Your task to perform on an android device: Clear all items from cart on ebay. Add "energizer triple a" to the cart on ebay, then select checkout. Image 0: 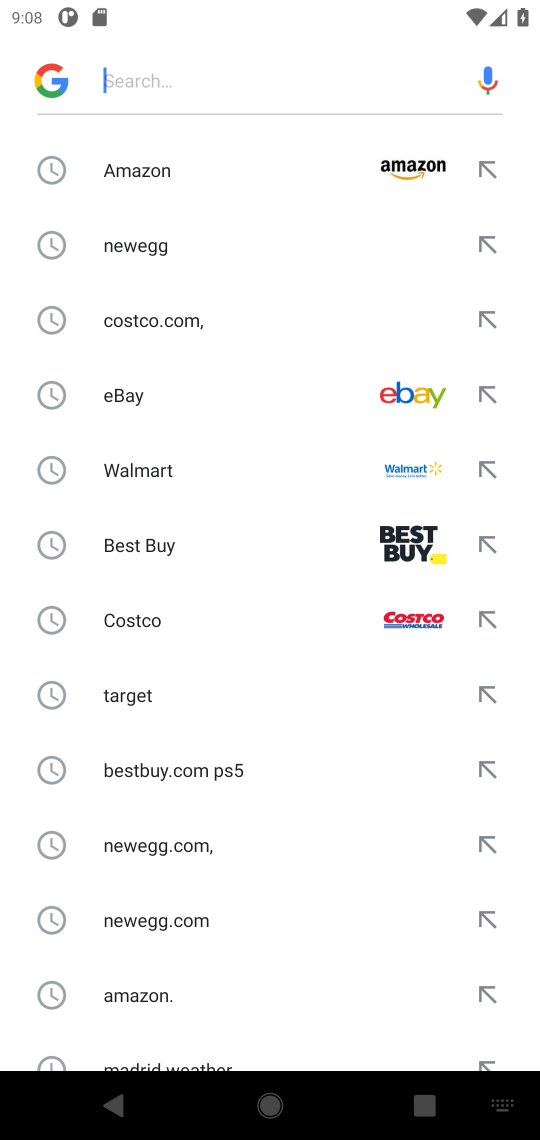
Step 0: click (275, 394)
Your task to perform on an android device: Clear all items from cart on ebay. Add "energizer triple a" to the cart on ebay, then select checkout. Image 1: 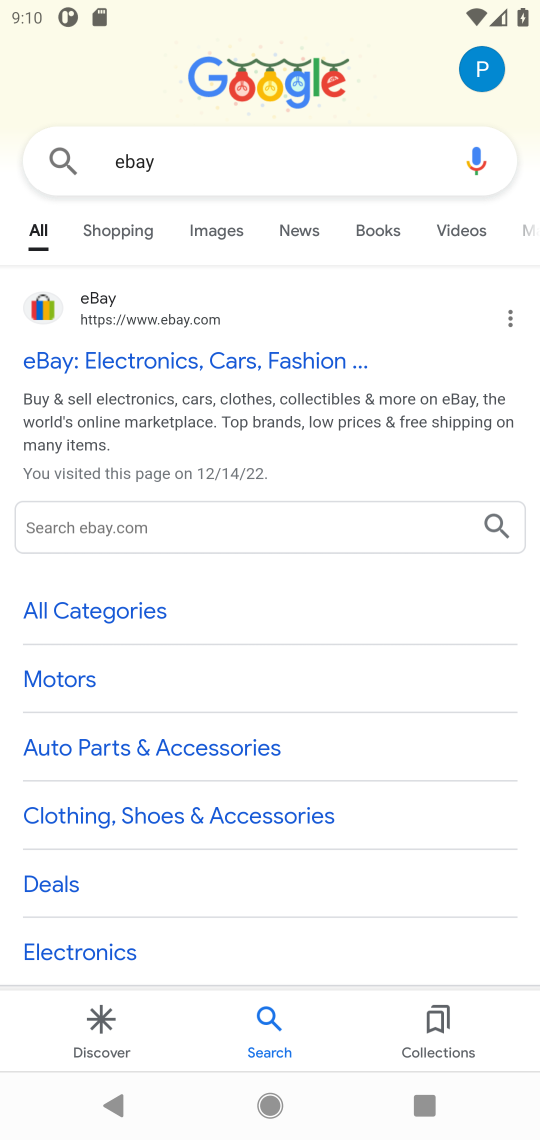
Step 1: click (192, 353)
Your task to perform on an android device: Clear all items from cart on ebay. Add "energizer triple a" to the cart on ebay, then select checkout. Image 2: 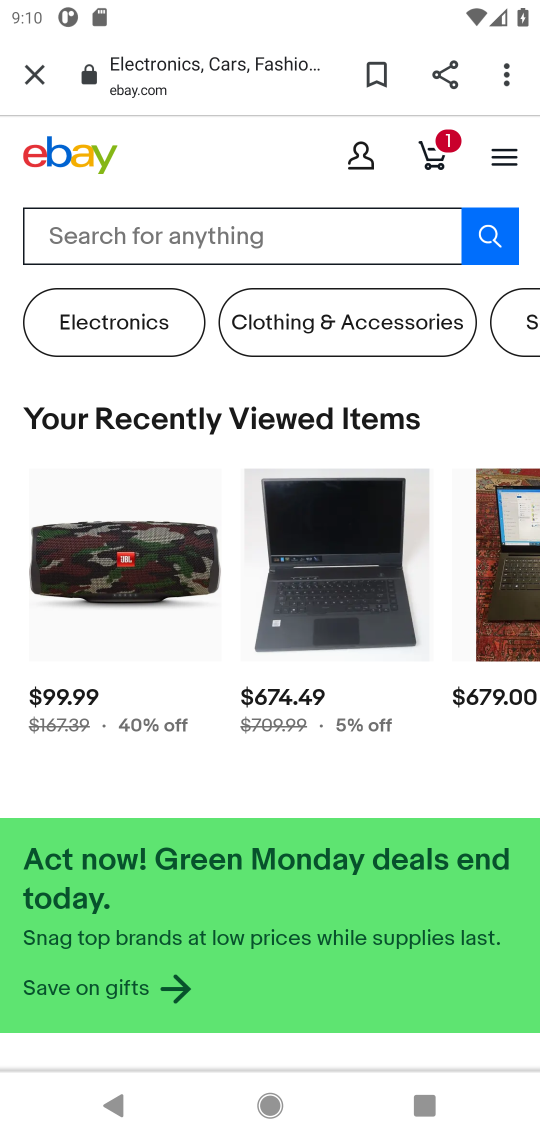
Step 2: click (443, 149)
Your task to perform on an android device: Clear all items from cart on ebay. Add "energizer triple a" to the cart on ebay, then select checkout. Image 3: 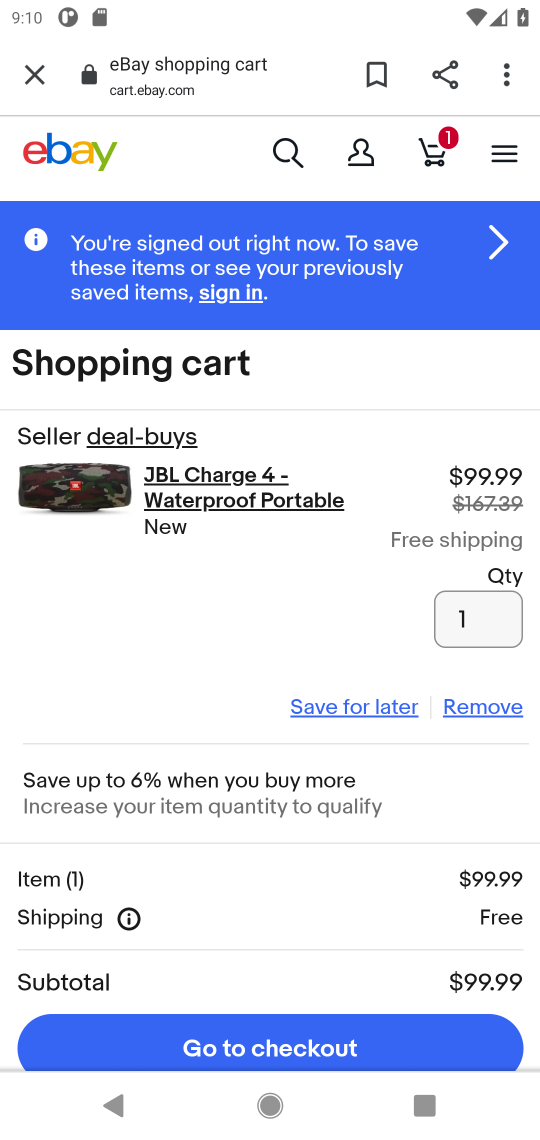
Step 3: click (481, 715)
Your task to perform on an android device: Clear all items from cart on ebay. Add "energizer triple a" to the cart on ebay, then select checkout. Image 4: 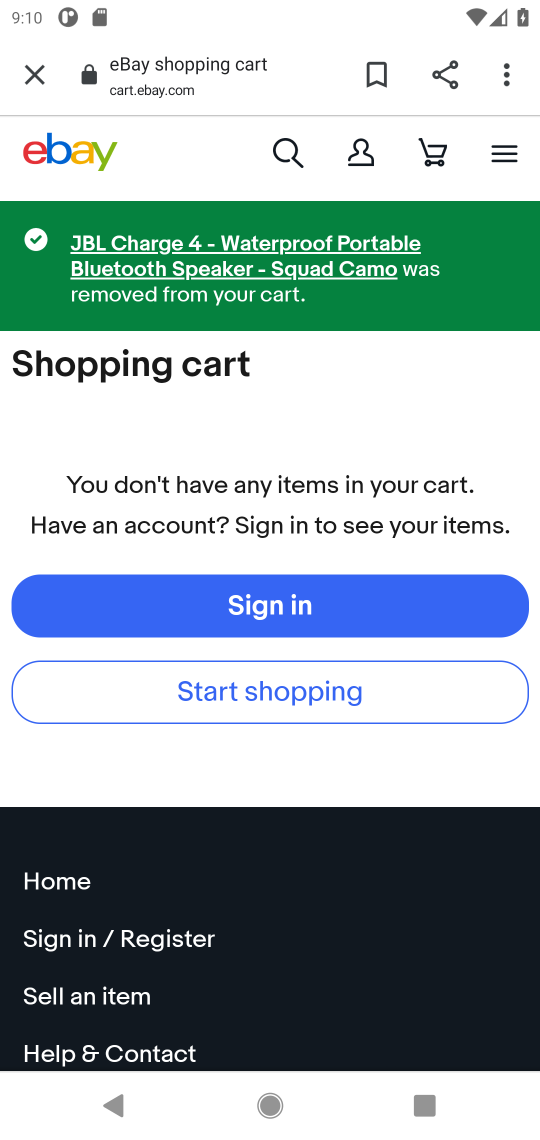
Step 4: click (279, 139)
Your task to perform on an android device: Clear all items from cart on ebay. Add "energizer triple a" to the cart on ebay, then select checkout. Image 5: 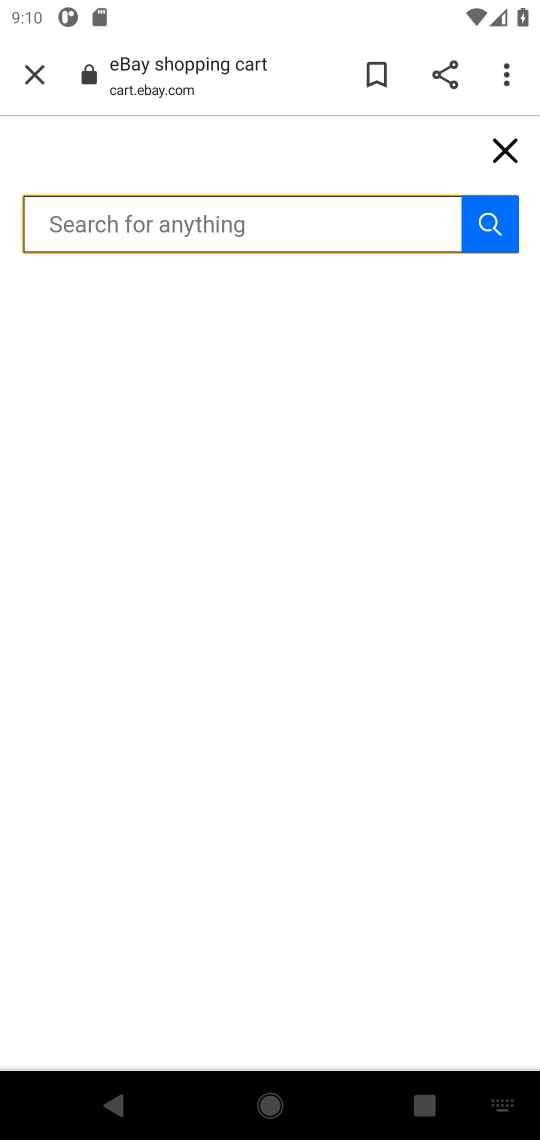
Step 5: type "energizer triple a"
Your task to perform on an android device: Clear all items from cart on ebay. Add "energizer triple a" to the cart on ebay, then select checkout. Image 6: 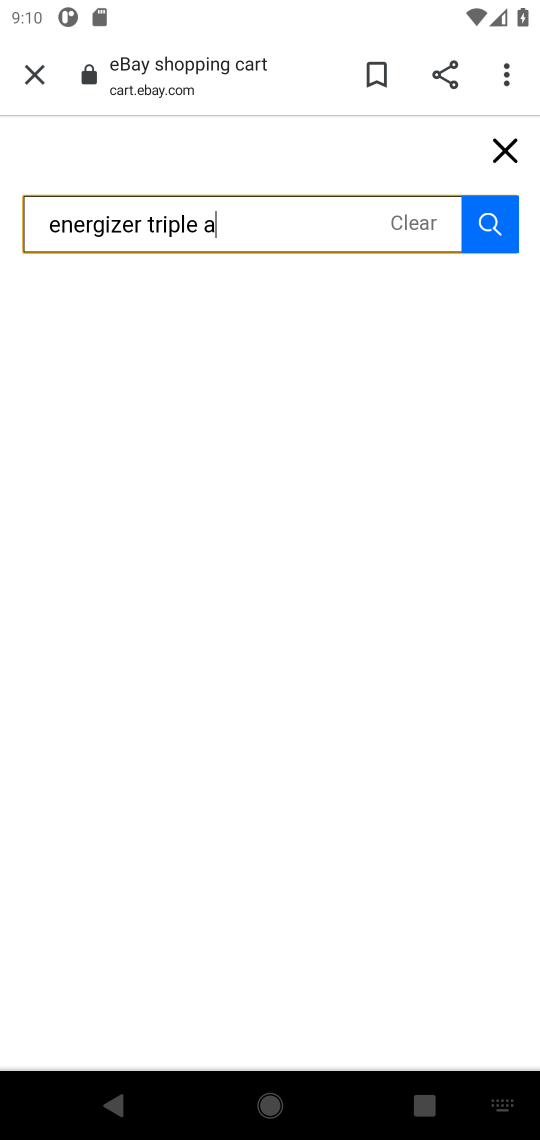
Step 6: type ""
Your task to perform on an android device: Clear all items from cart on ebay. Add "energizer triple a" to the cart on ebay, then select checkout. Image 7: 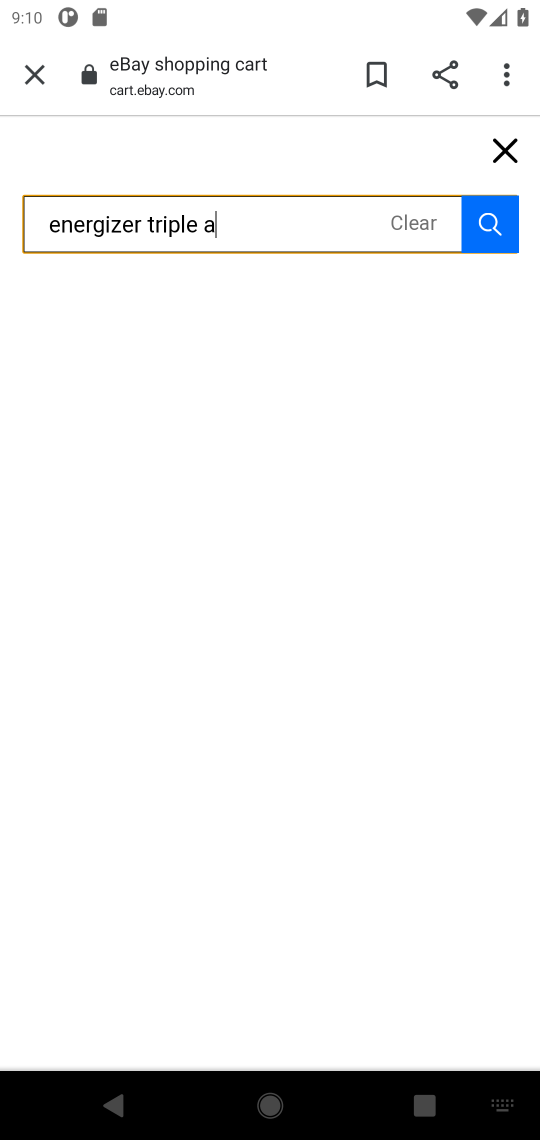
Step 7: click (485, 249)
Your task to perform on an android device: Clear all items from cart on ebay. Add "energizer triple a" to the cart on ebay, then select checkout. Image 8: 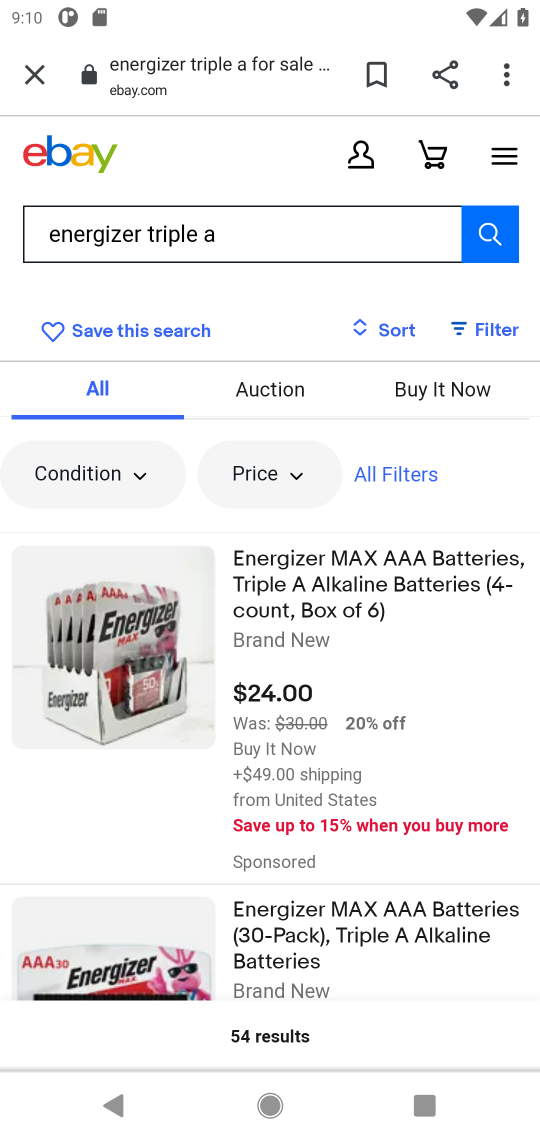
Step 8: click (347, 584)
Your task to perform on an android device: Clear all items from cart on ebay. Add "energizer triple a" to the cart on ebay, then select checkout. Image 9: 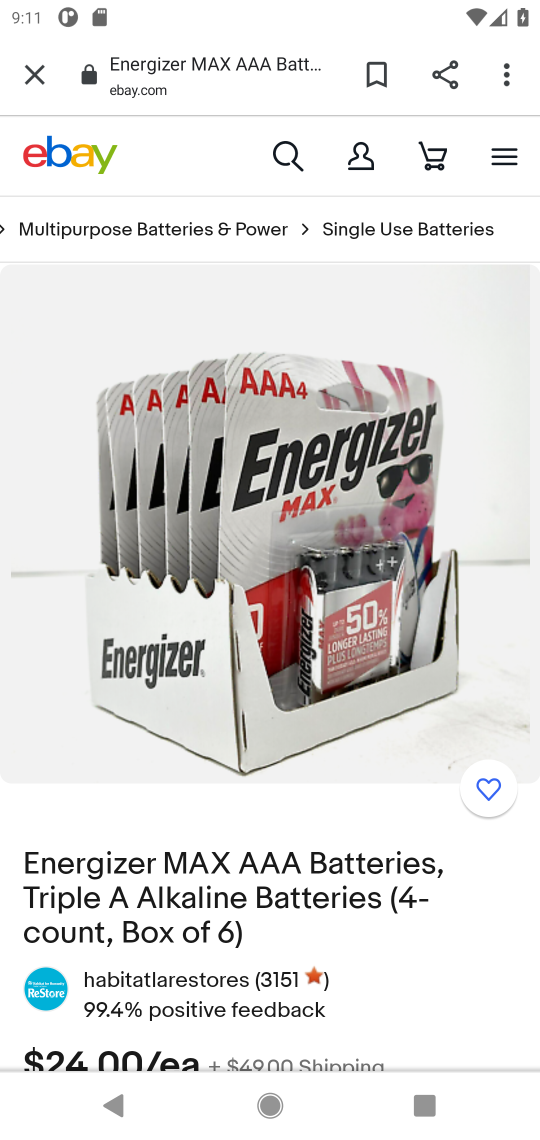
Step 9: drag from (314, 958) to (169, 588)
Your task to perform on an android device: Clear all items from cart on ebay. Add "energizer triple a" to the cart on ebay, then select checkout. Image 10: 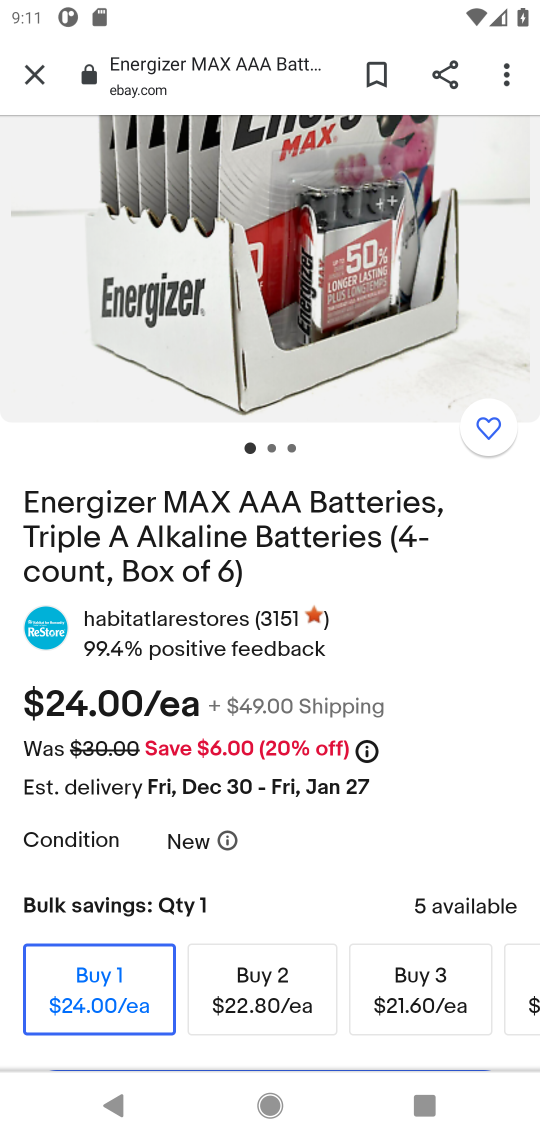
Step 10: drag from (342, 899) to (214, 281)
Your task to perform on an android device: Clear all items from cart on ebay. Add "energizer triple a" to the cart on ebay, then select checkout. Image 11: 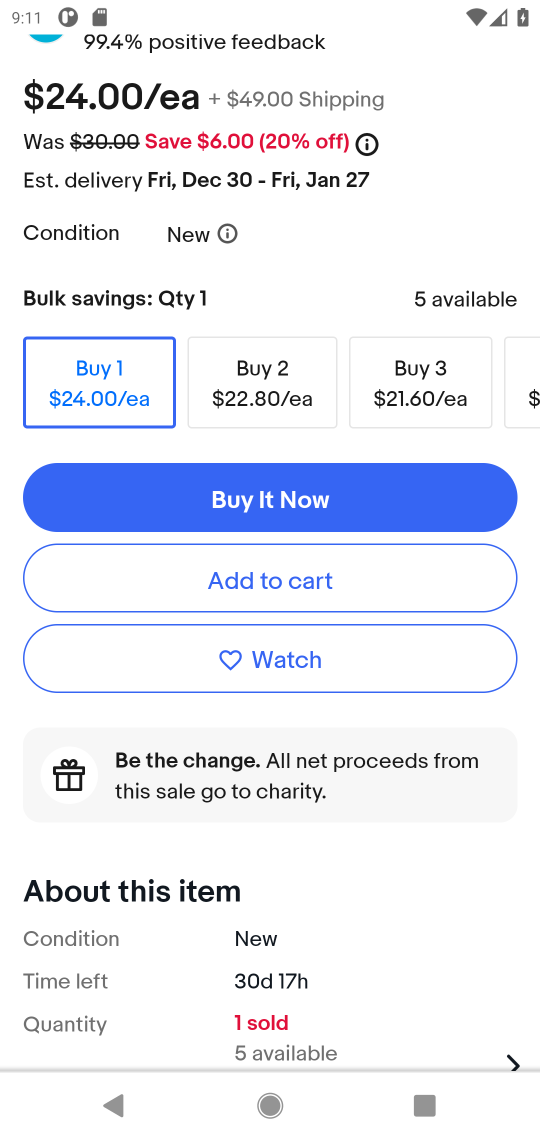
Step 11: click (294, 577)
Your task to perform on an android device: Clear all items from cart on ebay. Add "energizer triple a" to the cart on ebay, then select checkout. Image 12: 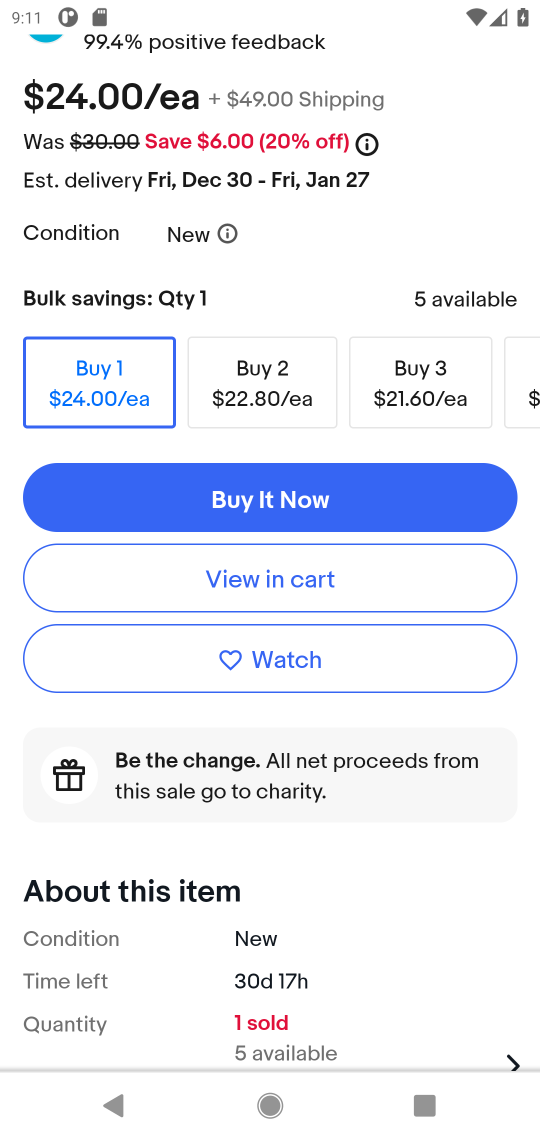
Step 12: click (294, 577)
Your task to perform on an android device: Clear all items from cart on ebay. Add "energizer triple a" to the cart on ebay, then select checkout. Image 13: 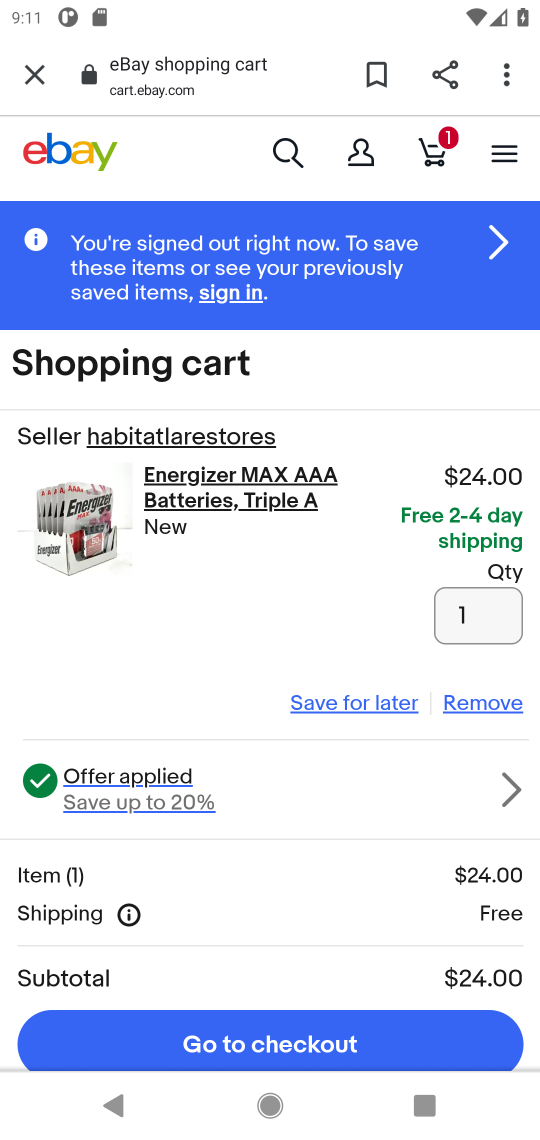
Step 13: click (268, 1029)
Your task to perform on an android device: Clear all items from cart on ebay. Add "energizer triple a" to the cart on ebay, then select checkout. Image 14: 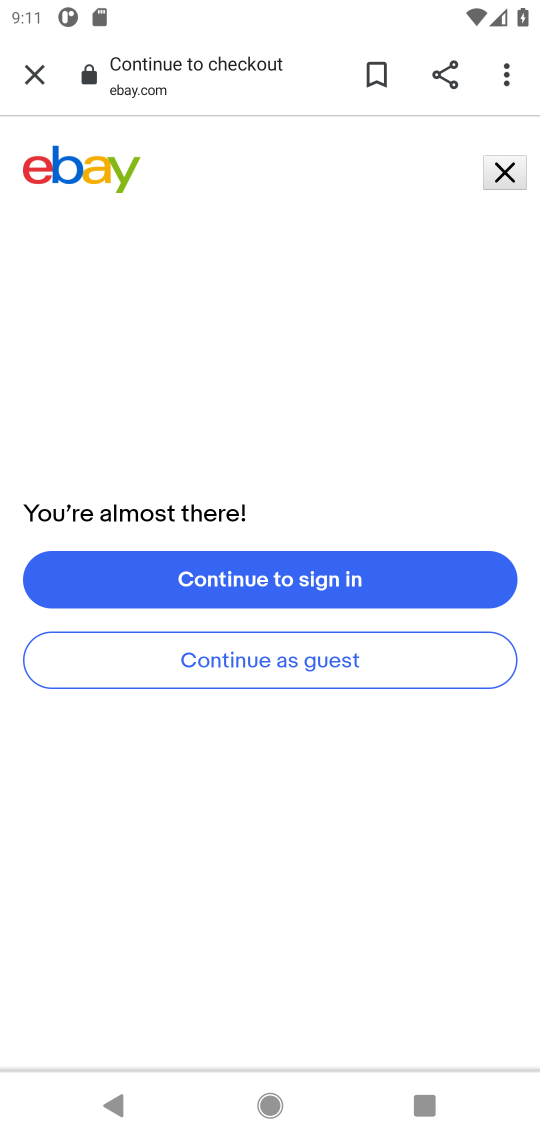
Step 14: task complete